Your task to perform on an android device: turn off priority inbox in the gmail app Image 0: 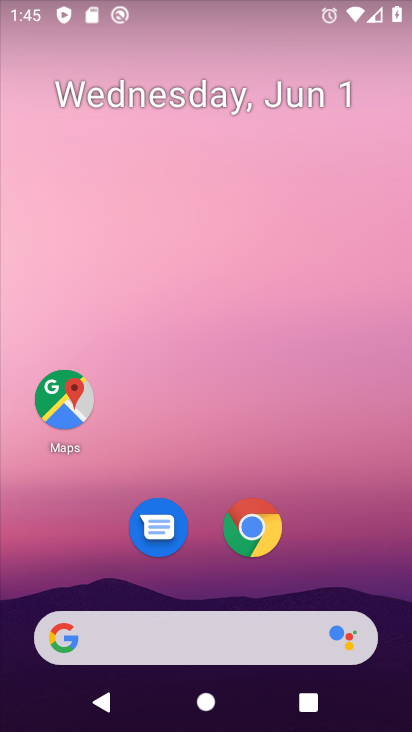
Step 0: drag from (390, 590) to (265, 104)
Your task to perform on an android device: turn off priority inbox in the gmail app Image 1: 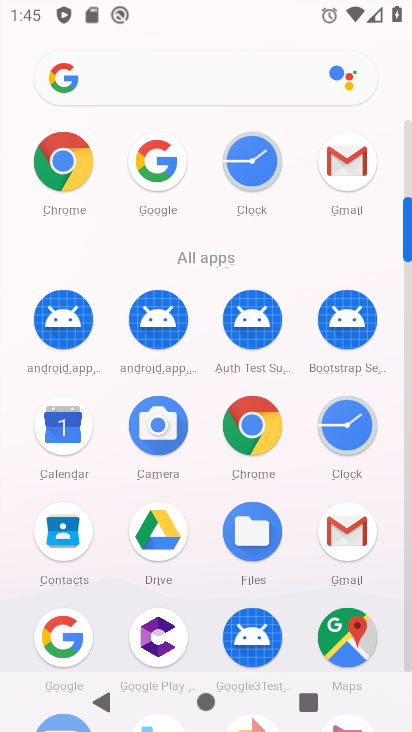
Step 1: click (359, 168)
Your task to perform on an android device: turn off priority inbox in the gmail app Image 2: 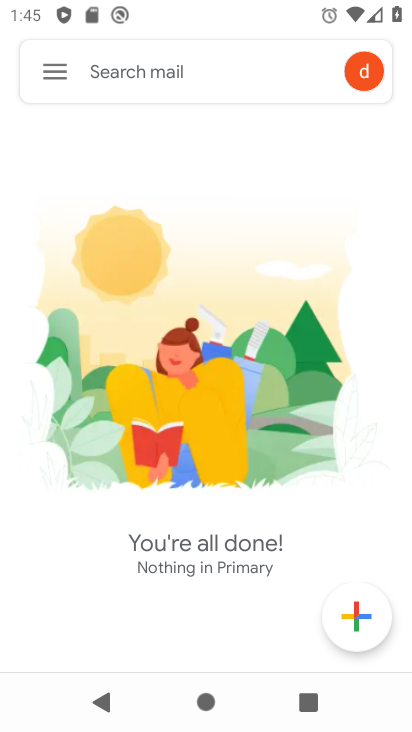
Step 2: click (47, 72)
Your task to perform on an android device: turn off priority inbox in the gmail app Image 3: 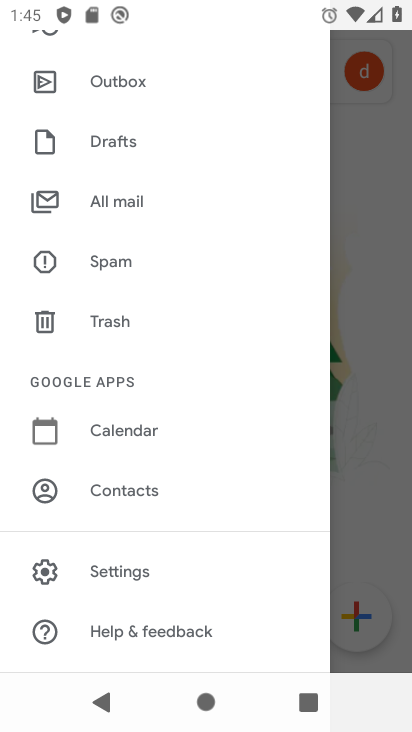
Step 3: click (138, 569)
Your task to perform on an android device: turn off priority inbox in the gmail app Image 4: 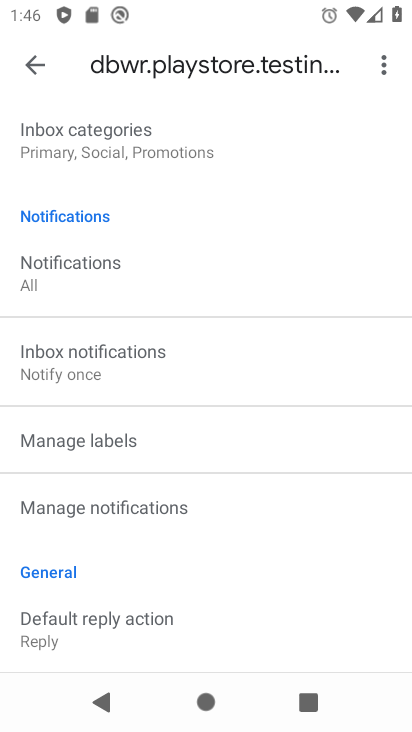
Step 4: drag from (182, 134) to (187, 406)
Your task to perform on an android device: turn off priority inbox in the gmail app Image 5: 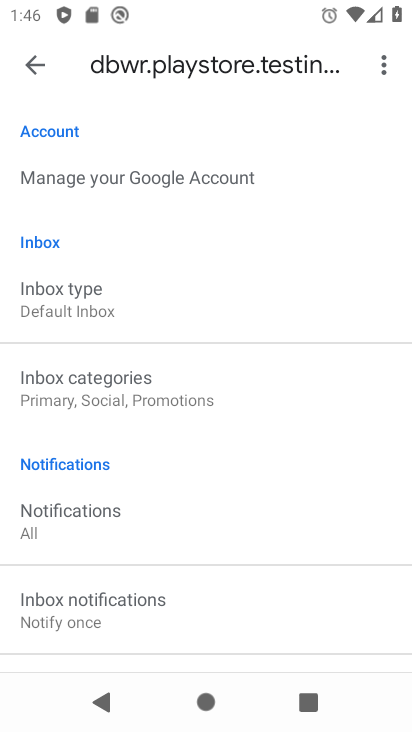
Step 5: click (268, 322)
Your task to perform on an android device: turn off priority inbox in the gmail app Image 6: 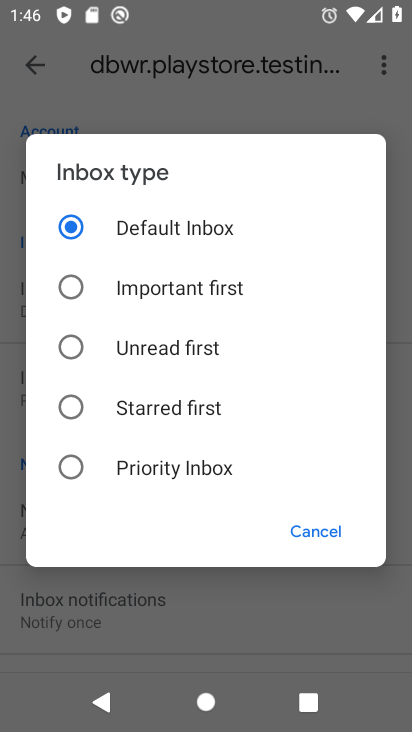
Step 6: task complete